Your task to perform on an android device: open the mobile data screen to see how much data has been used Image 0: 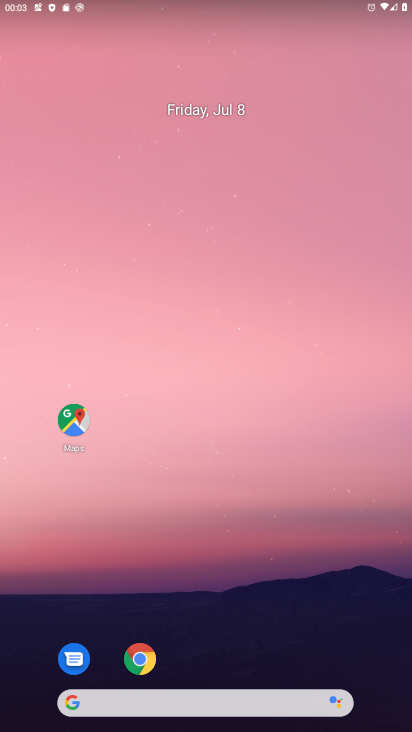
Step 0: drag from (230, 11) to (285, 509)
Your task to perform on an android device: open the mobile data screen to see how much data has been used Image 1: 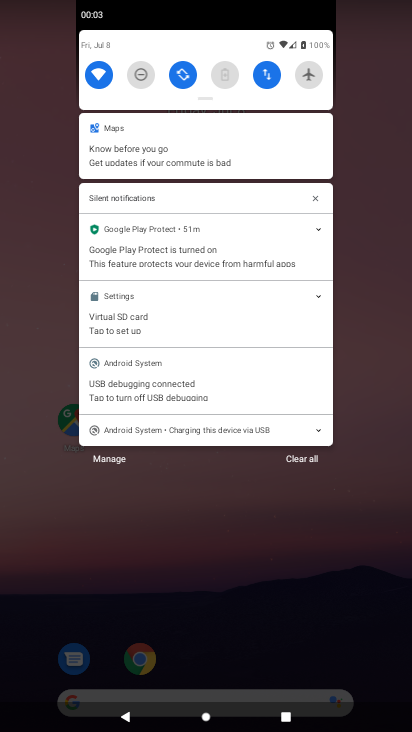
Step 1: click (263, 83)
Your task to perform on an android device: open the mobile data screen to see how much data has been used Image 2: 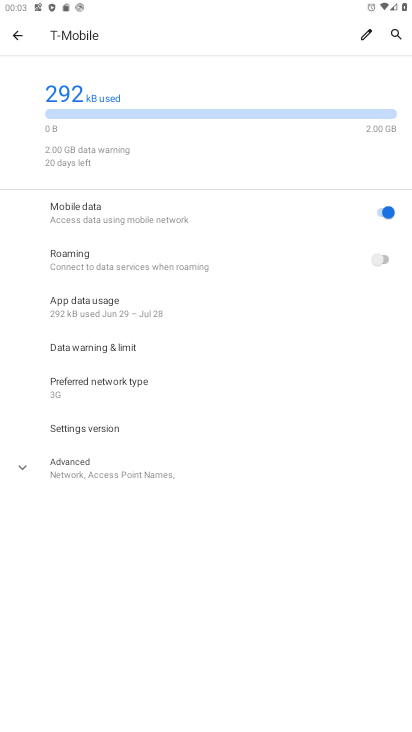
Step 2: task complete